Your task to perform on an android device: Do I have any events tomorrow? Image 0: 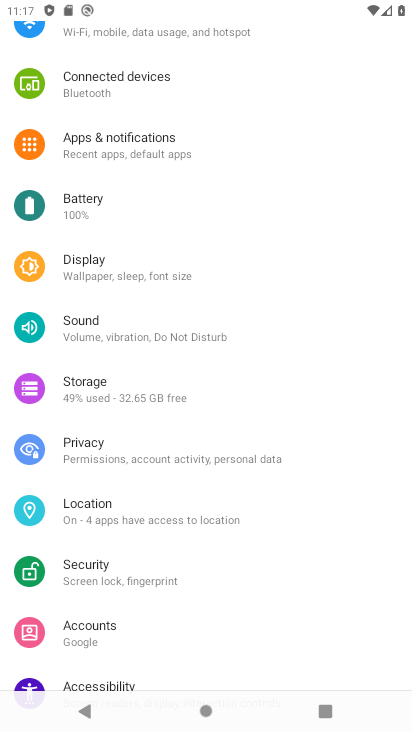
Step 0: press home button
Your task to perform on an android device: Do I have any events tomorrow? Image 1: 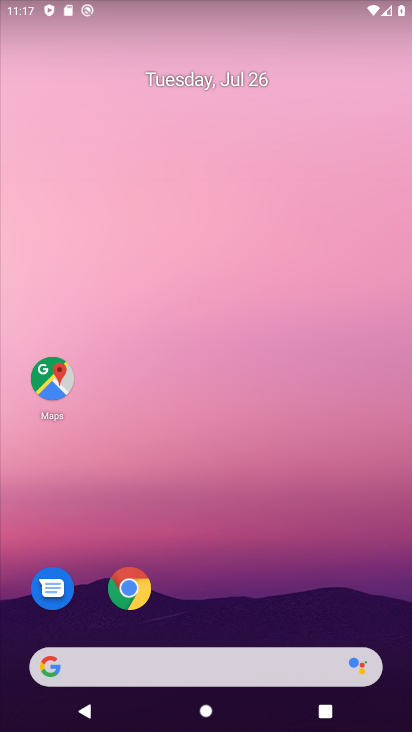
Step 1: drag from (19, 706) to (256, 230)
Your task to perform on an android device: Do I have any events tomorrow? Image 2: 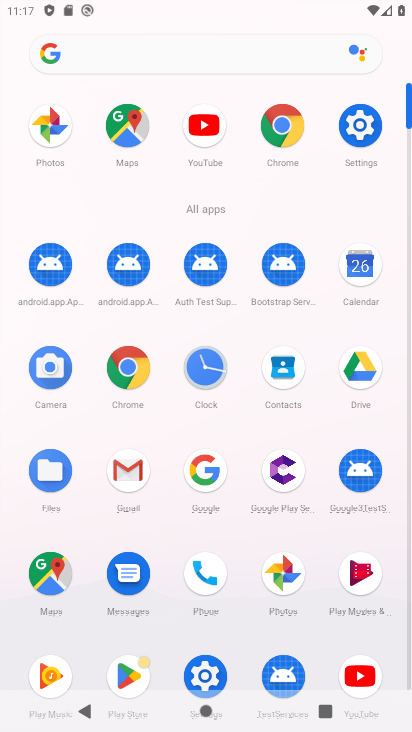
Step 2: click (359, 276)
Your task to perform on an android device: Do I have any events tomorrow? Image 3: 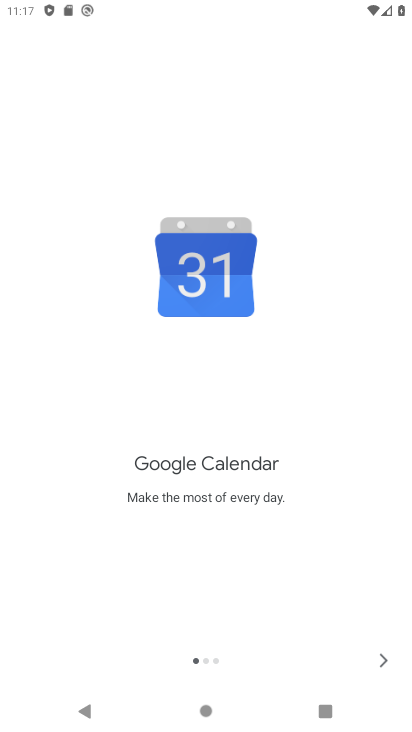
Step 3: click (384, 663)
Your task to perform on an android device: Do I have any events tomorrow? Image 4: 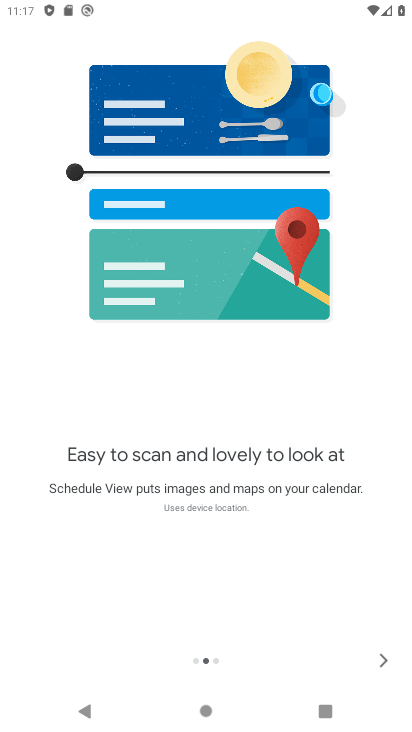
Step 4: click (373, 655)
Your task to perform on an android device: Do I have any events tomorrow? Image 5: 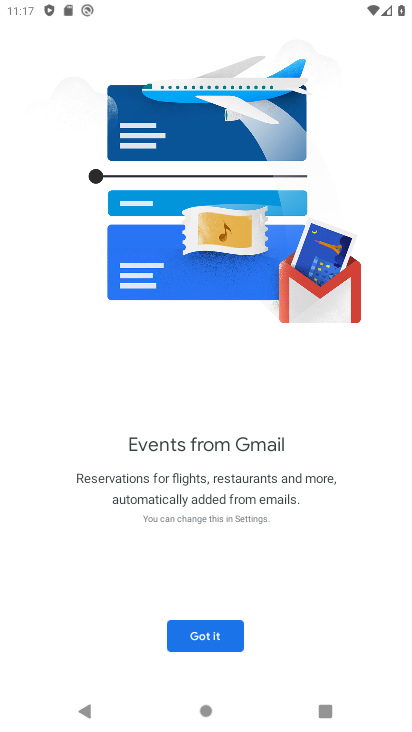
Step 5: click (201, 625)
Your task to perform on an android device: Do I have any events tomorrow? Image 6: 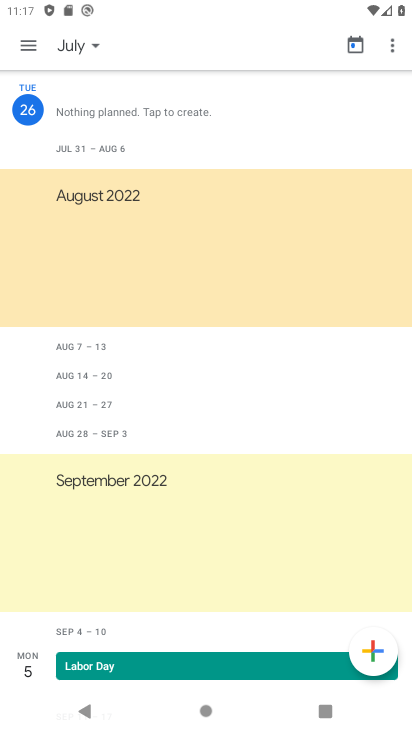
Step 6: click (98, 46)
Your task to perform on an android device: Do I have any events tomorrow? Image 7: 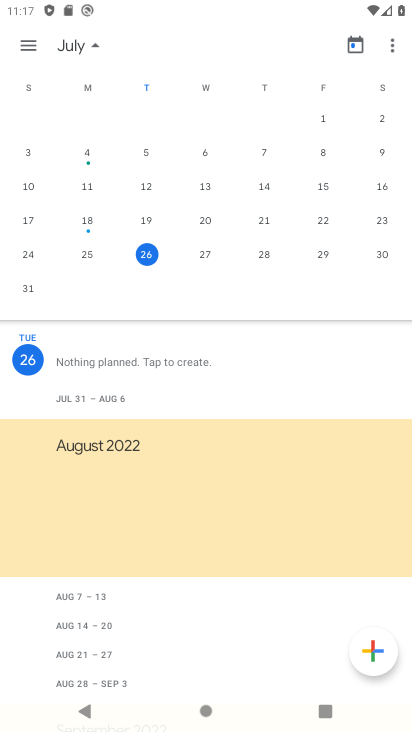
Step 7: task complete